Your task to perform on an android device: Open the stopwatch Image 0: 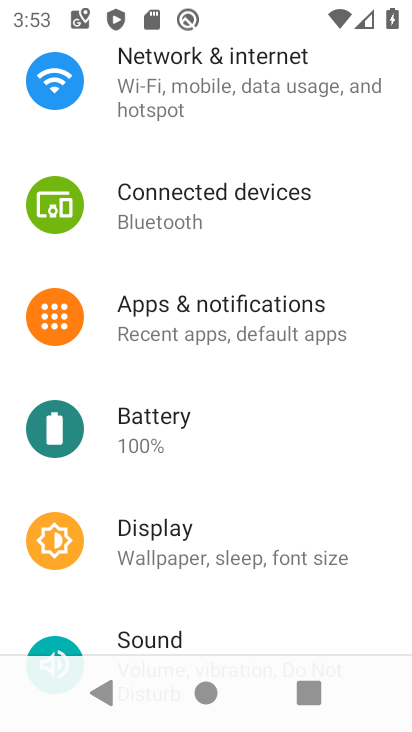
Step 0: press home button
Your task to perform on an android device: Open the stopwatch Image 1: 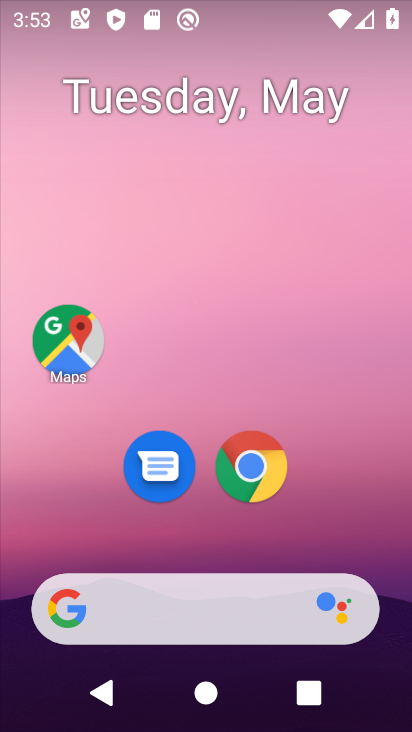
Step 1: drag from (151, 722) to (153, 101)
Your task to perform on an android device: Open the stopwatch Image 2: 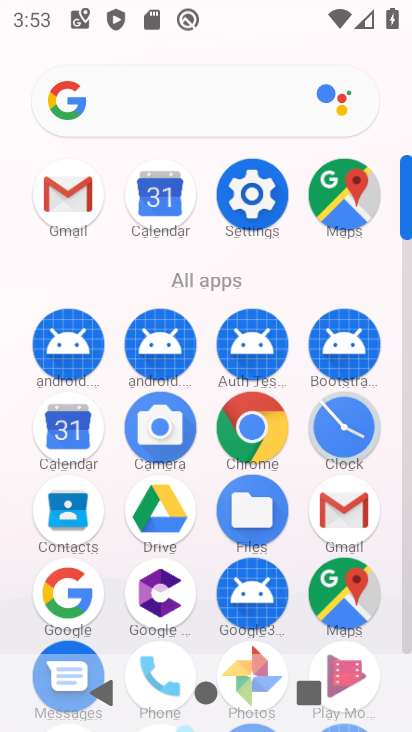
Step 2: drag from (204, 498) to (205, 222)
Your task to perform on an android device: Open the stopwatch Image 3: 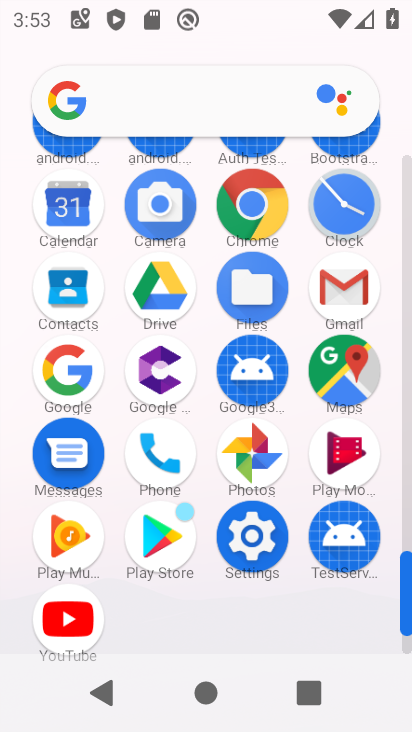
Step 3: click (347, 224)
Your task to perform on an android device: Open the stopwatch Image 4: 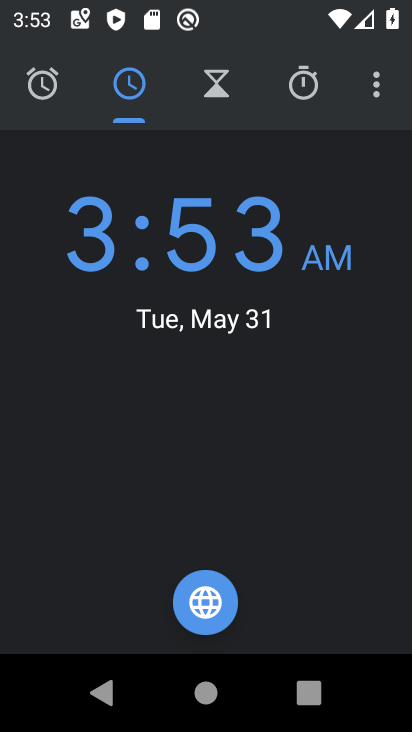
Step 4: click (300, 91)
Your task to perform on an android device: Open the stopwatch Image 5: 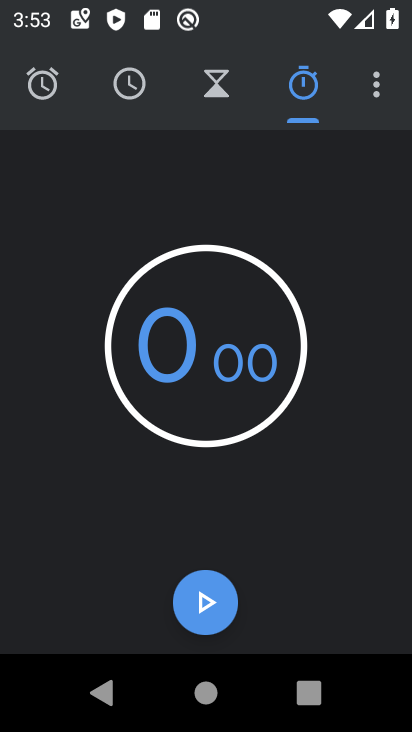
Step 5: task complete